Your task to perform on an android device: turn on wifi Image 0: 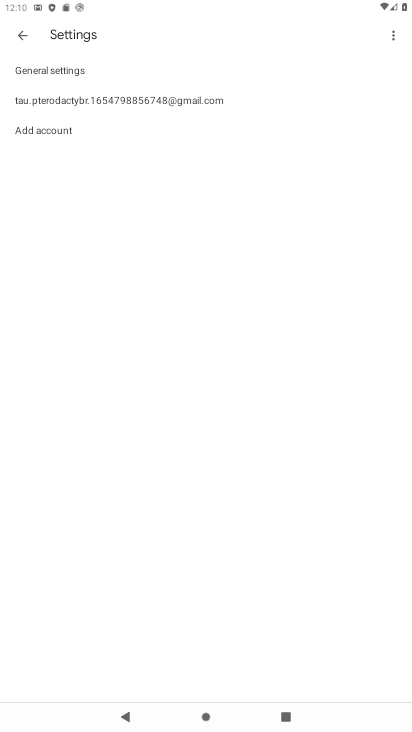
Step 0: drag from (207, 657) to (163, 99)
Your task to perform on an android device: turn on wifi Image 1: 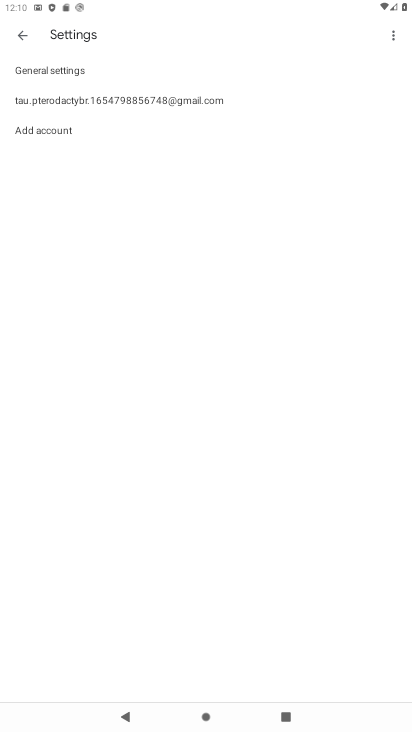
Step 1: press home button
Your task to perform on an android device: turn on wifi Image 2: 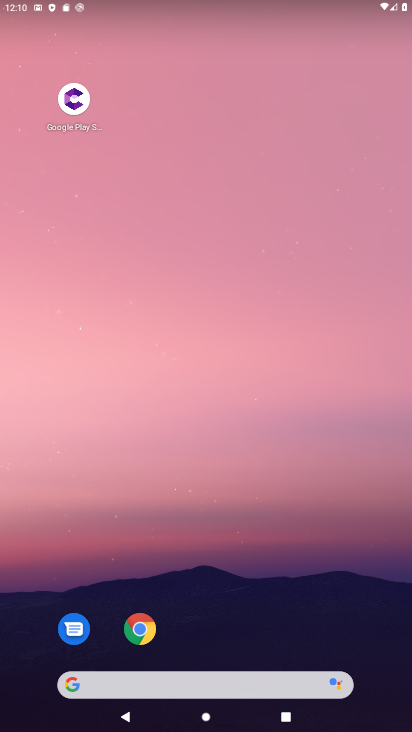
Step 2: drag from (193, 654) to (176, 86)
Your task to perform on an android device: turn on wifi Image 3: 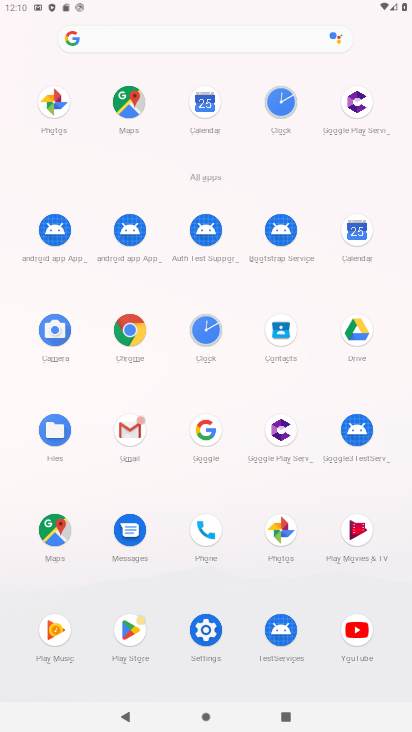
Step 3: click (207, 628)
Your task to perform on an android device: turn on wifi Image 4: 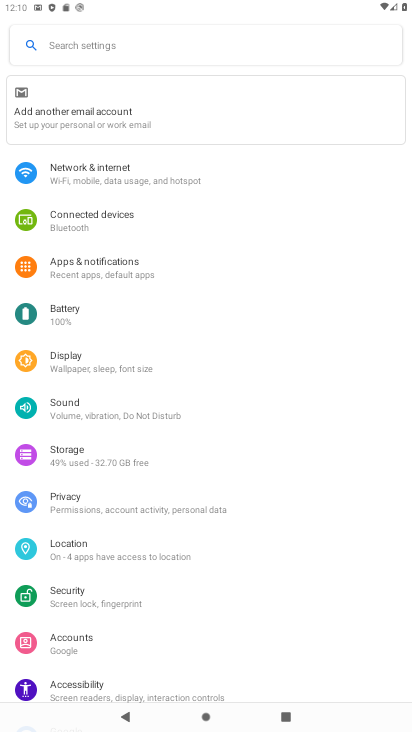
Step 4: click (107, 185)
Your task to perform on an android device: turn on wifi Image 5: 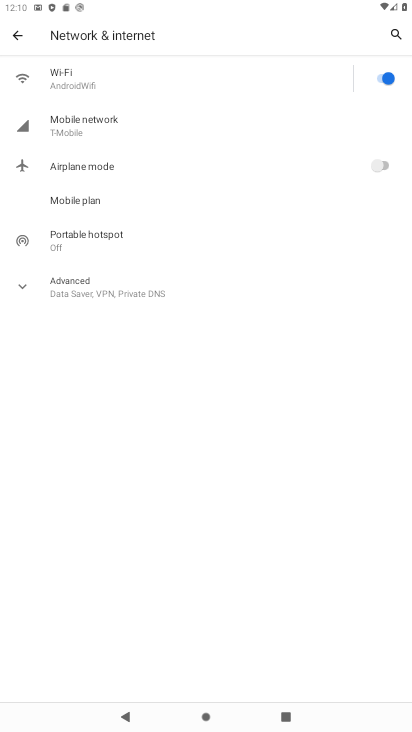
Step 5: click (131, 74)
Your task to perform on an android device: turn on wifi Image 6: 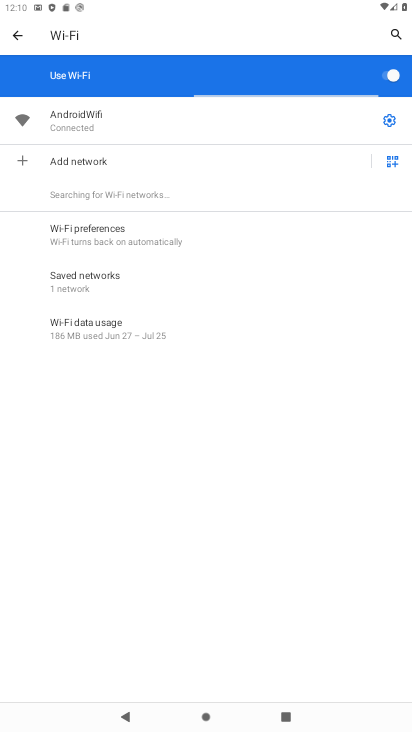
Step 6: task complete